Your task to perform on an android device: show emergency info Image 0: 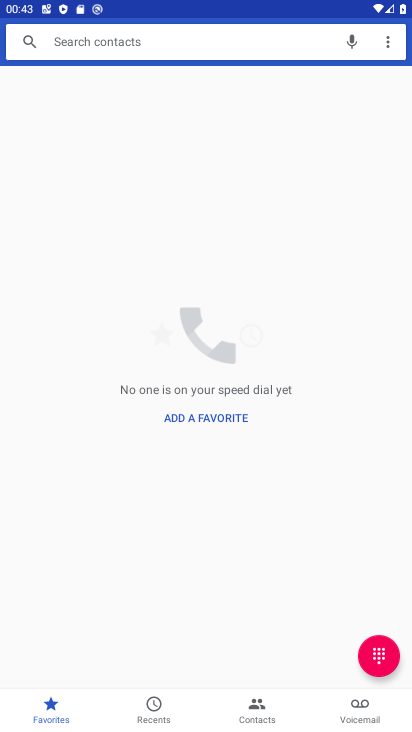
Step 0: press back button
Your task to perform on an android device: show emergency info Image 1: 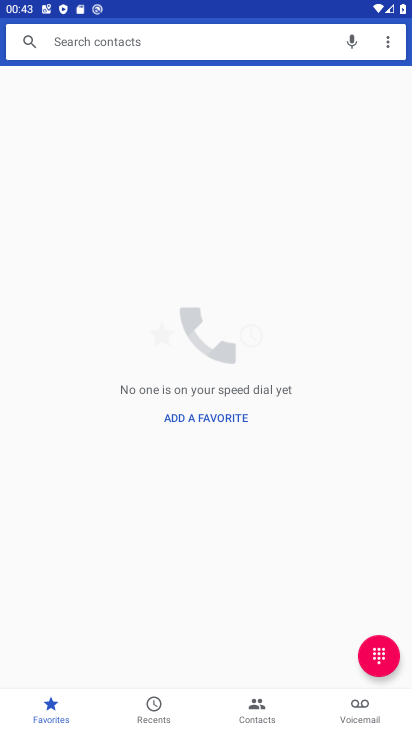
Step 1: press back button
Your task to perform on an android device: show emergency info Image 2: 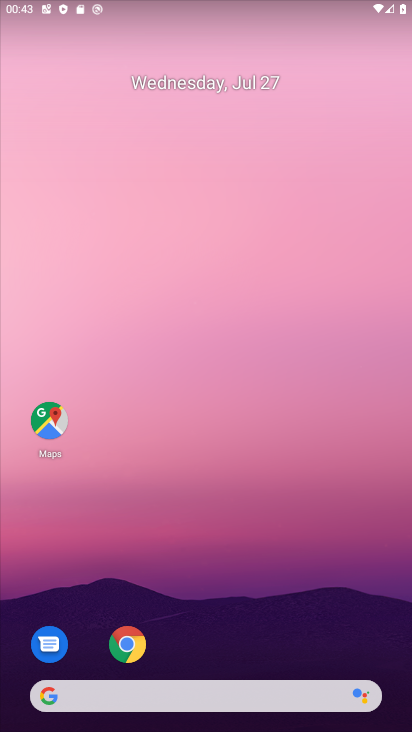
Step 2: drag from (244, 504) to (202, 77)
Your task to perform on an android device: show emergency info Image 3: 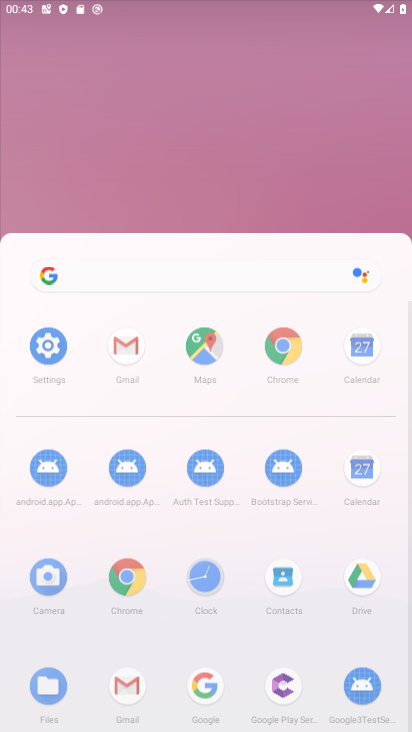
Step 3: drag from (225, 316) to (191, 97)
Your task to perform on an android device: show emergency info Image 4: 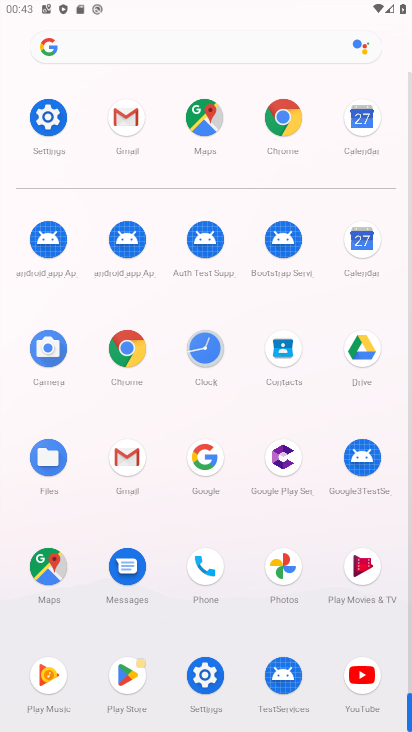
Step 4: drag from (161, 557) to (161, 236)
Your task to perform on an android device: show emergency info Image 5: 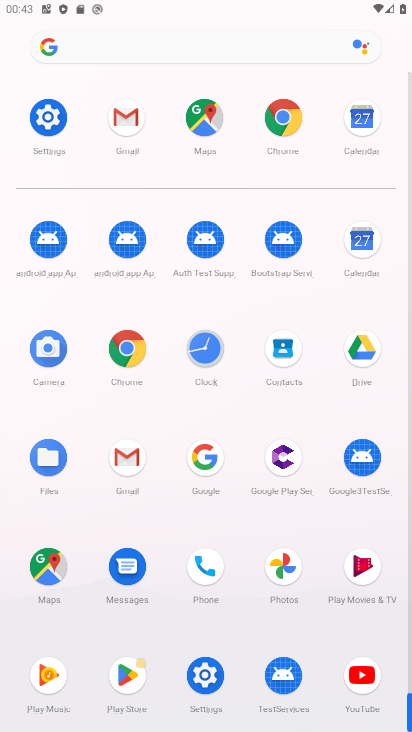
Step 5: click (192, 672)
Your task to perform on an android device: show emergency info Image 6: 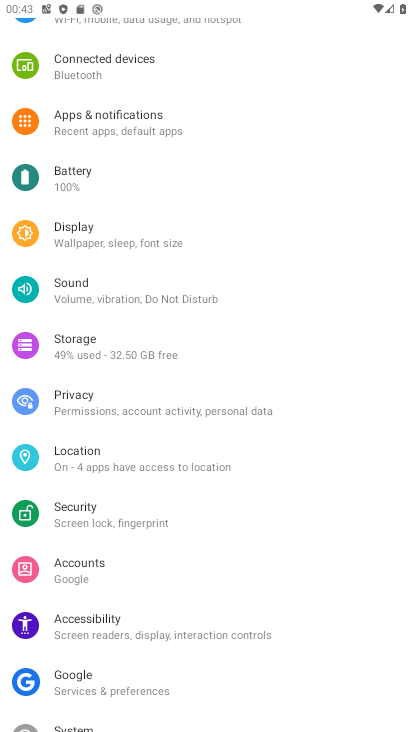
Step 6: drag from (88, 562) to (88, 215)
Your task to perform on an android device: show emergency info Image 7: 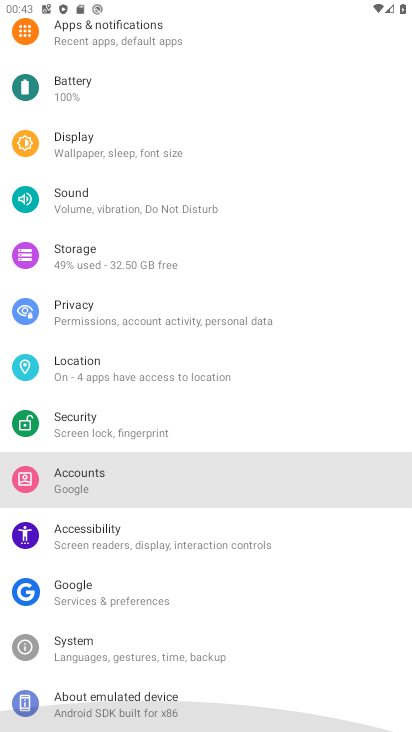
Step 7: drag from (132, 400) to (128, 29)
Your task to perform on an android device: show emergency info Image 8: 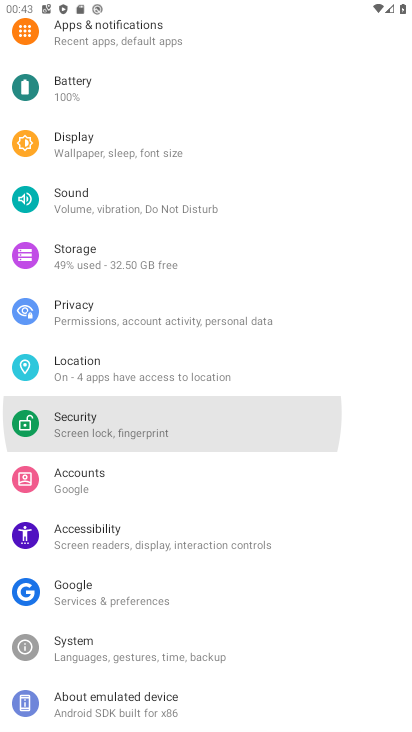
Step 8: drag from (181, 388) to (184, 99)
Your task to perform on an android device: show emergency info Image 9: 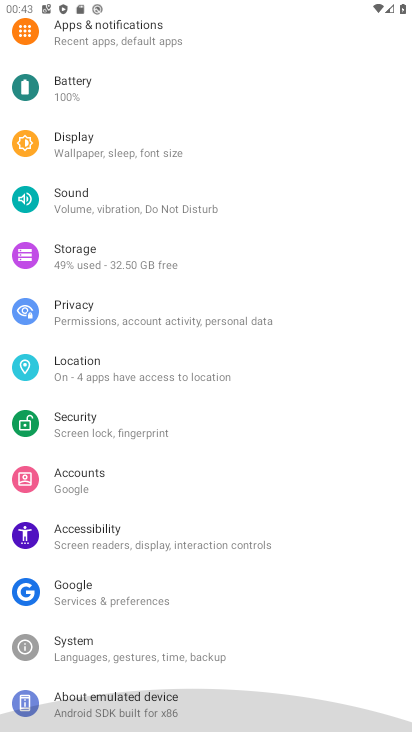
Step 9: drag from (188, 584) to (256, 59)
Your task to perform on an android device: show emergency info Image 10: 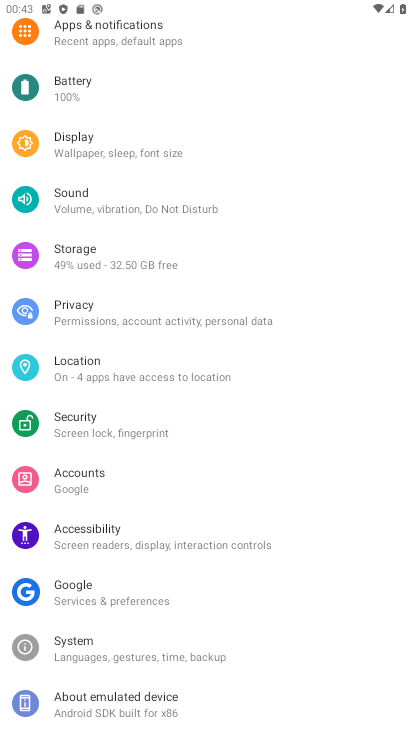
Step 10: click (120, 699)
Your task to perform on an android device: show emergency info Image 11: 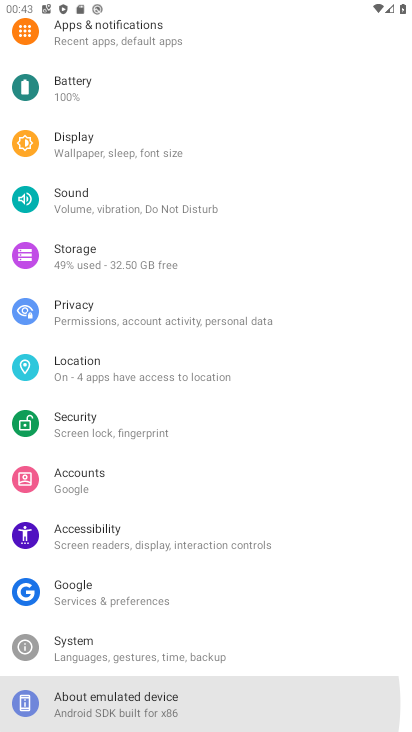
Step 11: click (119, 699)
Your task to perform on an android device: show emergency info Image 12: 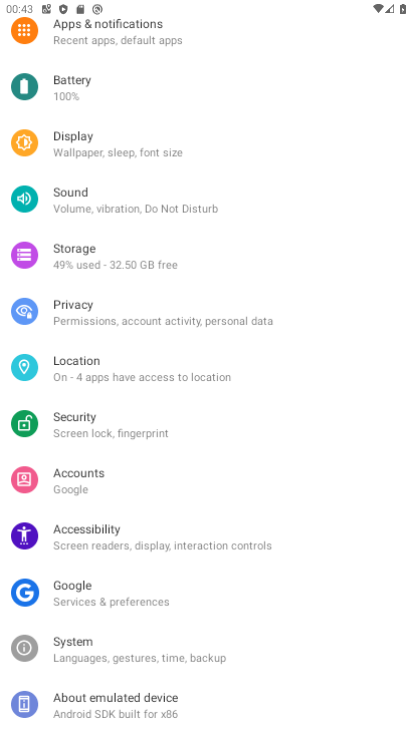
Step 12: click (139, 704)
Your task to perform on an android device: show emergency info Image 13: 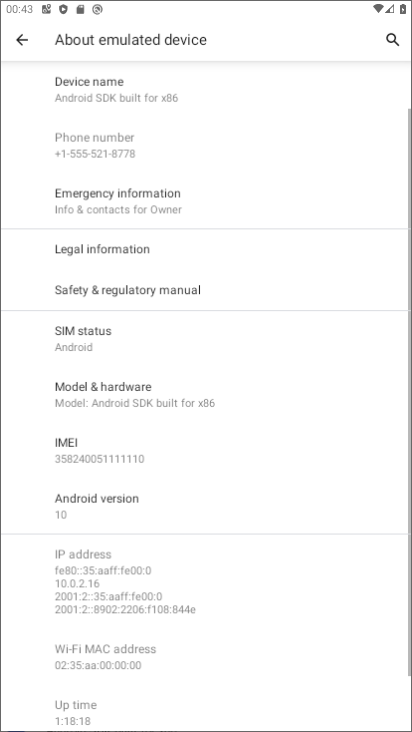
Step 13: click (139, 703)
Your task to perform on an android device: show emergency info Image 14: 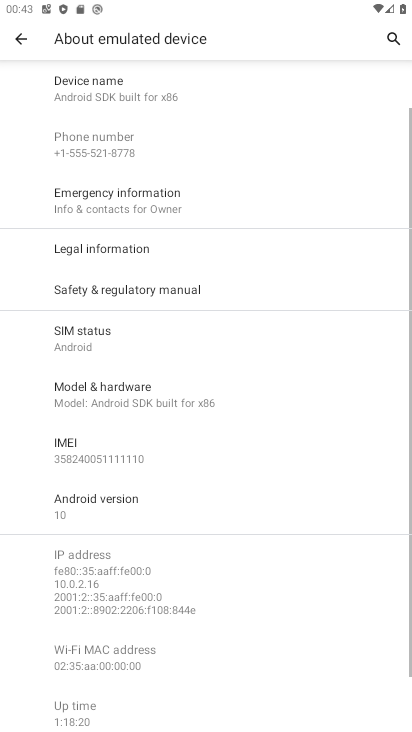
Step 14: task complete